Your task to perform on an android device: turn on priority inbox in the gmail app Image 0: 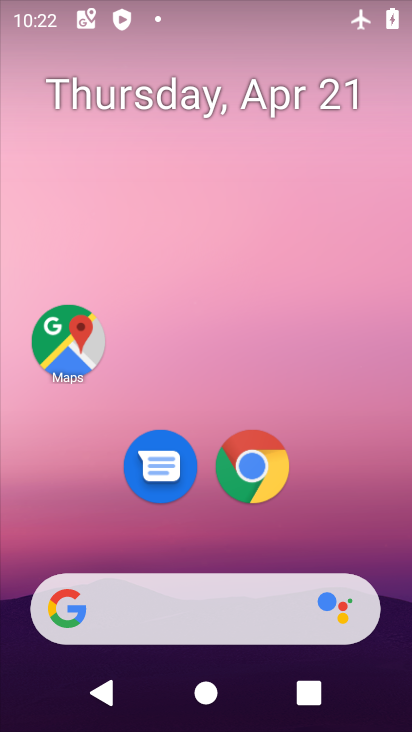
Step 0: drag from (316, 388) to (253, 81)
Your task to perform on an android device: turn on priority inbox in the gmail app Image 1: 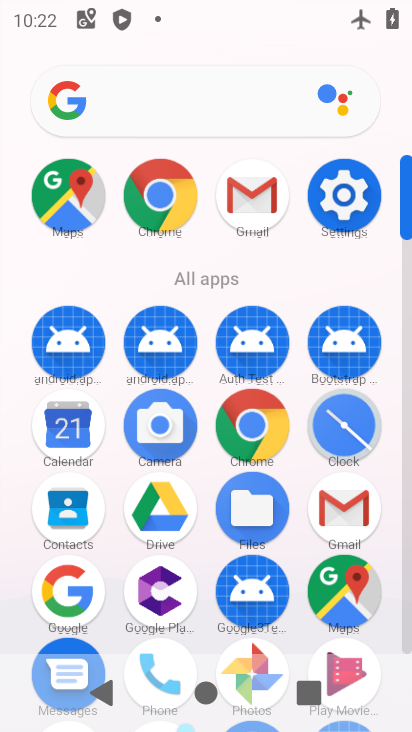
Step 1: click (339, 520)
Your task to perform on an android device: turn on priority inbox in the gmail app Image 2: 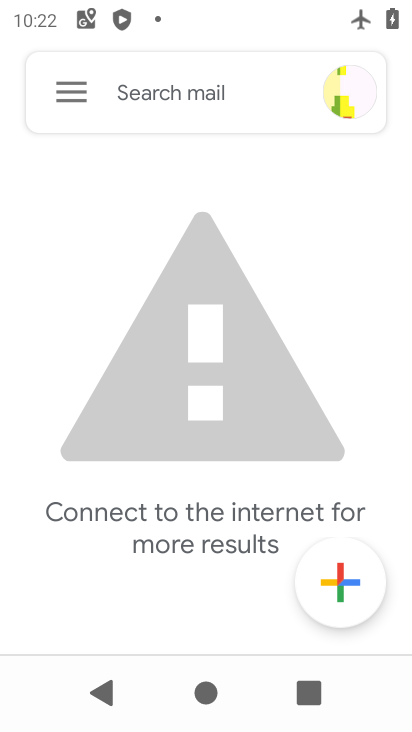
Step 2: click (48, 77)
Your task to perform on an android device: turn on priority inbox in the gmail app Image 3: 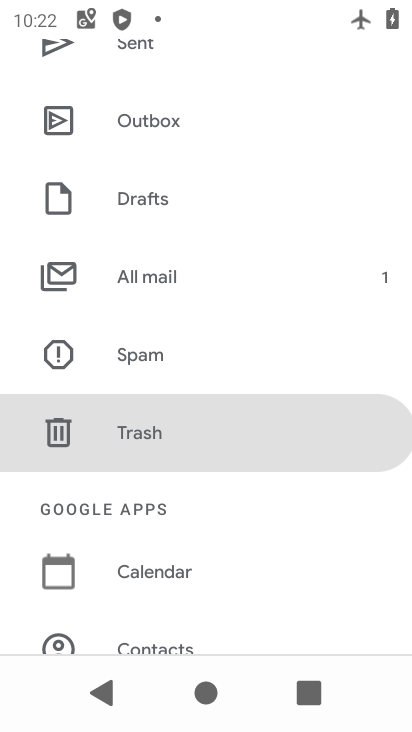
Step 3: drag from (168, 568) to (241, 71)
Your task to perform on an android device: turn on priority inbox in the gmail app Image 4: 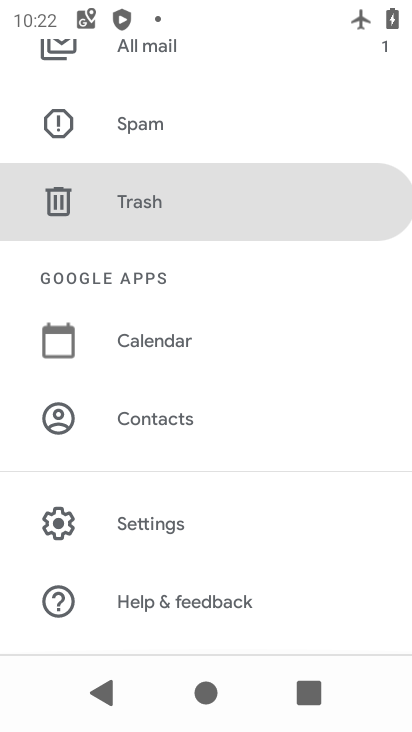
Step 4: click (178, 509)
Your task to perform on an android device: turn on priority inbox in the gmail app Image 5: 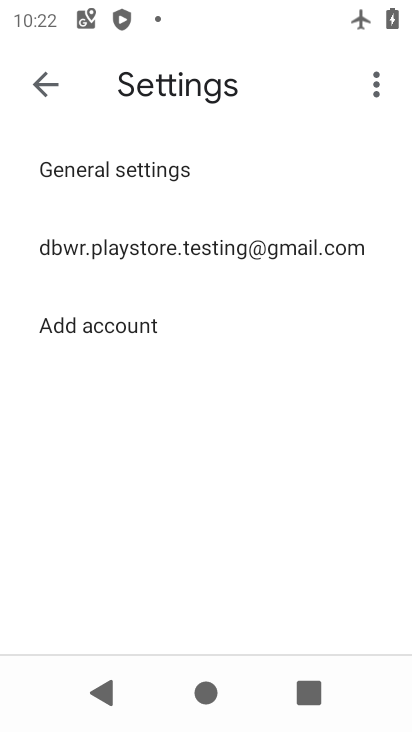
Step 5: click (161, 232)
Your task to perform on an android device: turn on priority inbox in the gmail app Image 6: 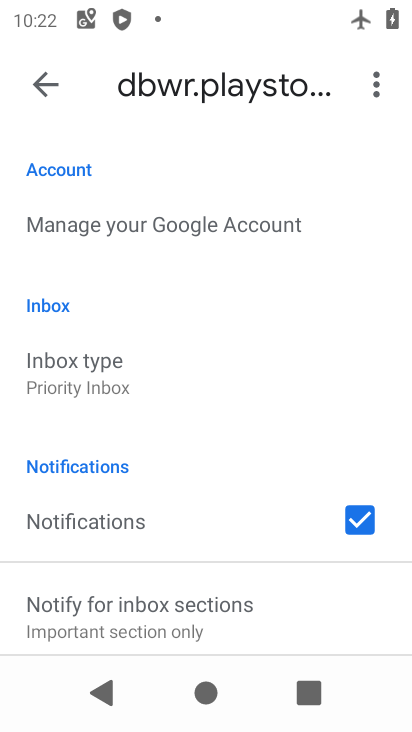
Step 6: click (95, 364)
Your task to perform on an android device: turn on priority inbox in the gmail app Image 7: 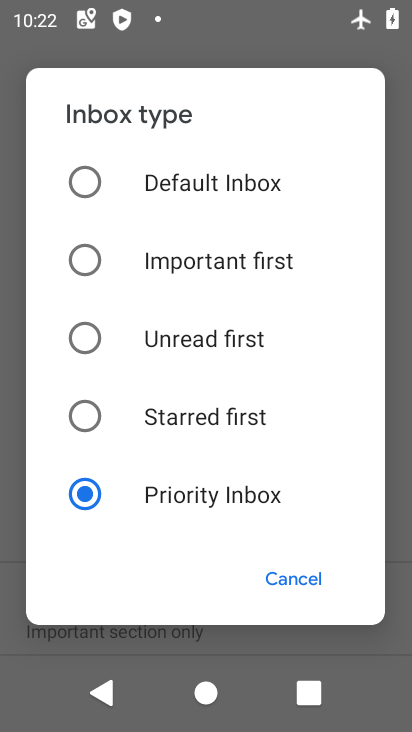
Step 7: task complete